Your task to perform on an android device: What's the news today? Image 0: 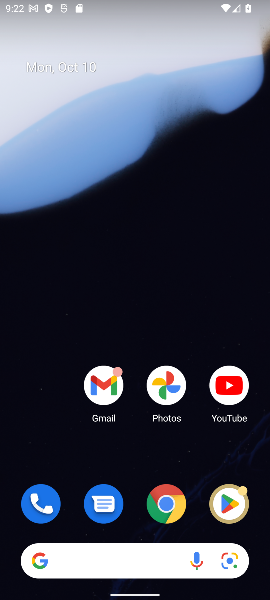
Step 0: click (166, 501)
Your task to perform on an android device: What's the news today? Image 1: 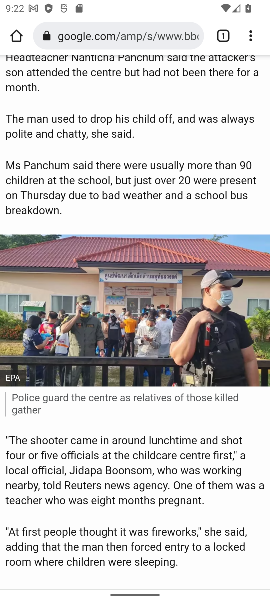
Step 1: click (108, 26)
Your task to perform on an android device: What's the news today? Image 2: 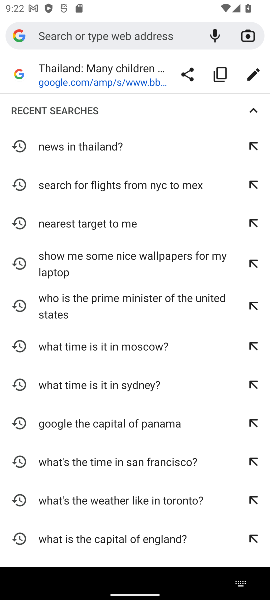
Step 2: type "news today?"
Your task to perform on an android device: What's the news today? Image 3: 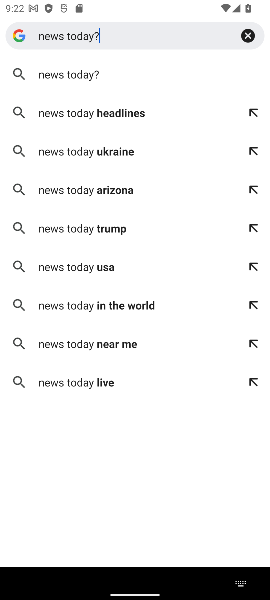
Step 3: click (64, 67)
Your task to perform on an android device: What's the news today? Image 4: 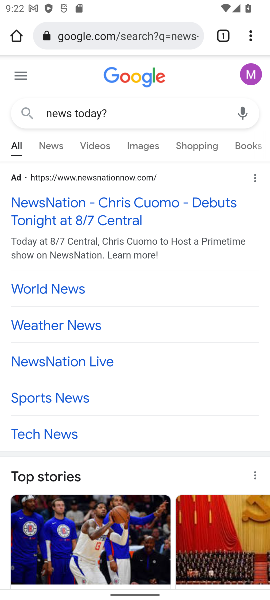
Step 4: drag from (162, 415) to (113, 116)
Your task to perform on an android device: What's the news today? Image 5: 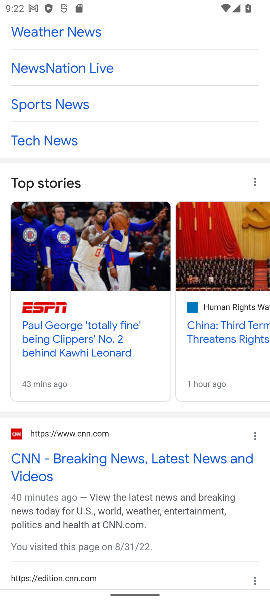
Step 5: click (73, 467)
Your task to perform on an android device: What's the news today? Image 6: 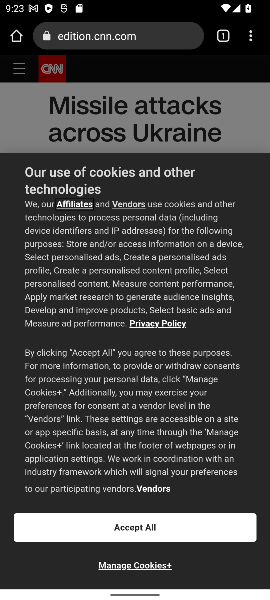
Step 6: click (133, 528)
Your task to perform on an android device: What's the news today? Image 7: 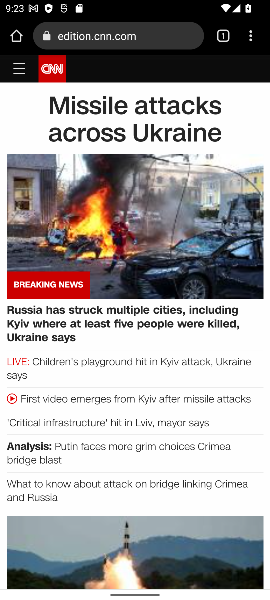
Step 7: task complete